Your task to perform on an android device: Open Wikipedia Image 0: 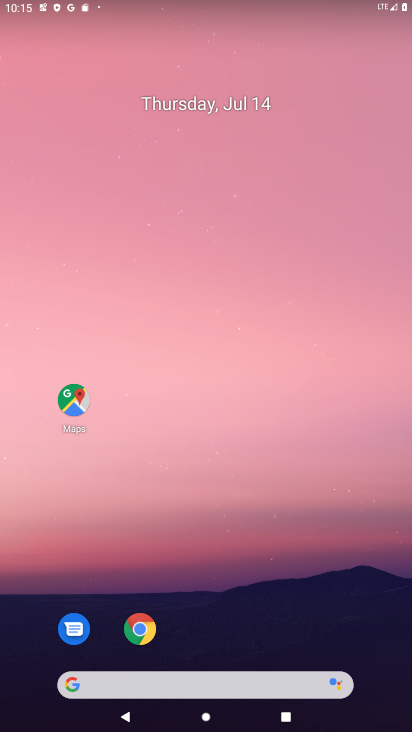
Step 0: click (130, 630)
Your task to perform on an android device: Open Wikipedia Image 1: 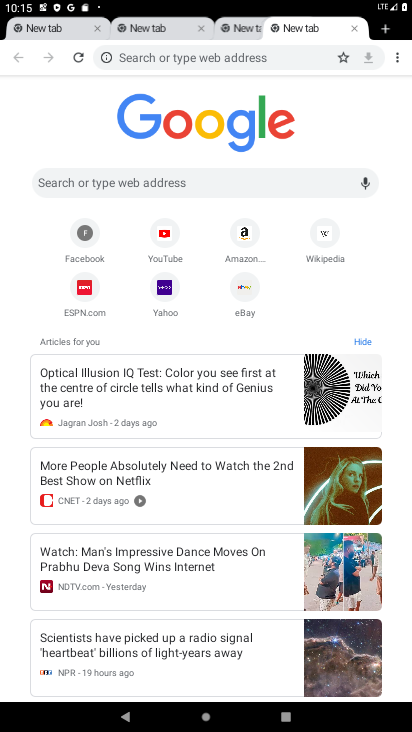
Step 1: click (324, 240)
Your task to perform on an android device: Open Wikipedia Image 2: 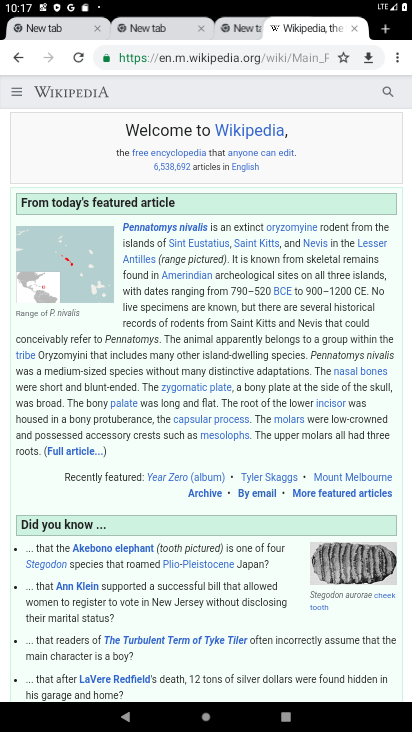
Step 2: task complete